Your task to perform on an android device: Go to Maps Image 0: 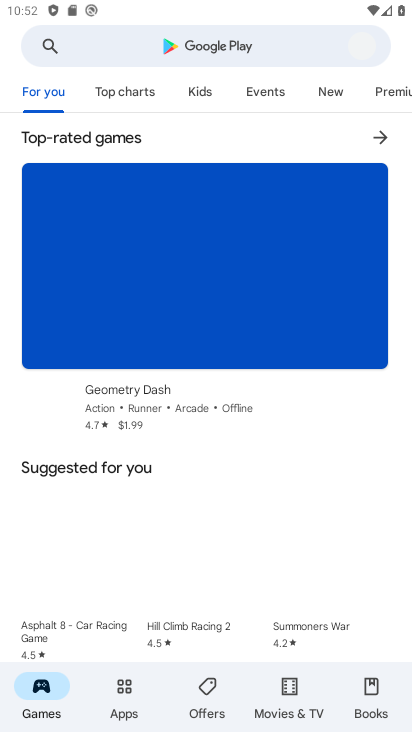
Step 0: press home button
Your task to perform on an android device: Go to Maps Image 1: 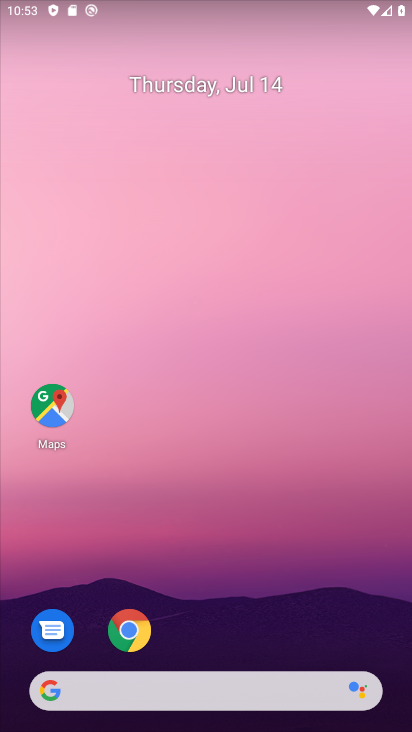
Step 1: click (41, 395)
Your task to perform on an android device: Go to Maps Image 2: 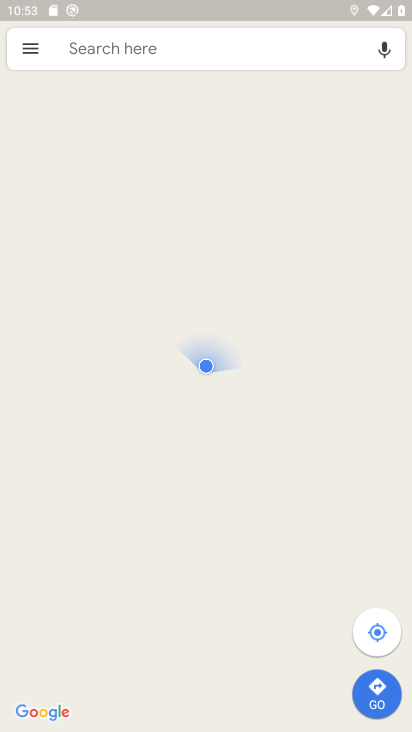
Step 2: task complete